Your task to perform on an android device: empty trash in google photos Image 0: 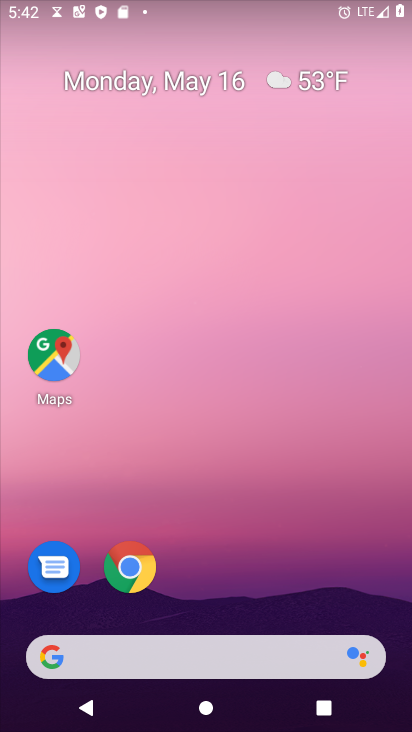
Step 0: drag from (279, 657) to (369, 23)
Your task to perform on an android device: empty trash in google photos Image 1: 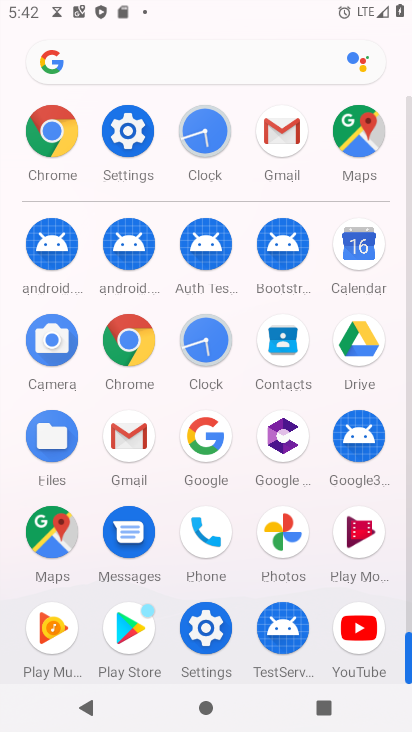
Step 1: click (286, 539)
Your task to perform on an android device: empty trash in google photos Image 2: 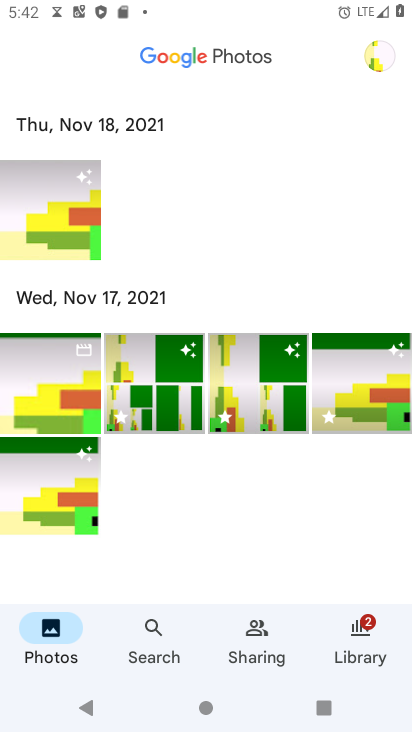
Step 2: click (266, 645)
Your task to perform on an android device: empty trash in google photos Image 3: 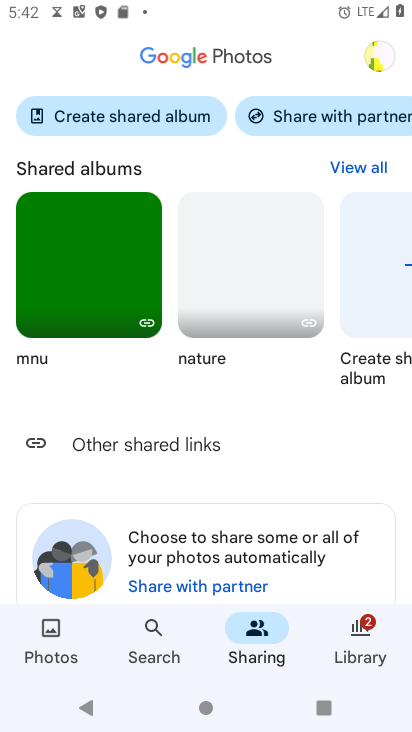
Step 3: click (336, 625)
Your task to perform on an android device: empty trash in google photos Image 4: 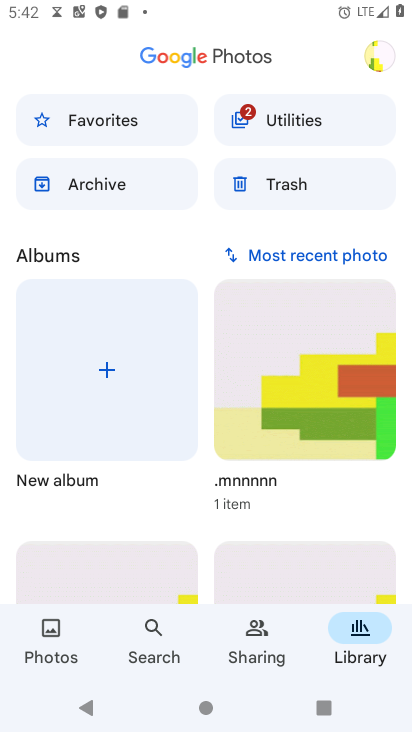
Step 4: click (305, 188)
Your task to perform on an android device: empty trash in google photos Image 5: 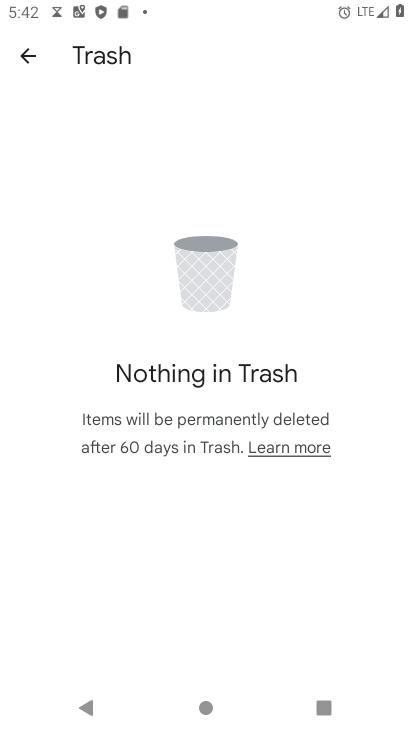
Step 5: task complete